Your task to perform on an android device: See recent photos Image 0: 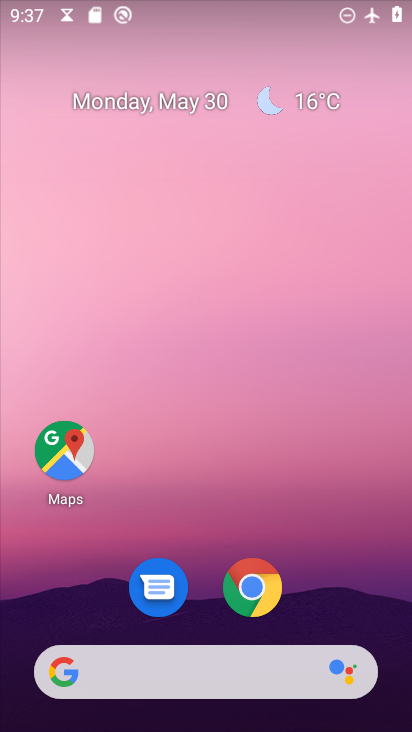
Step 0: drag from (217, 605) to (351, 189)
Your task to perform on an android device: See recent photos Image 1: 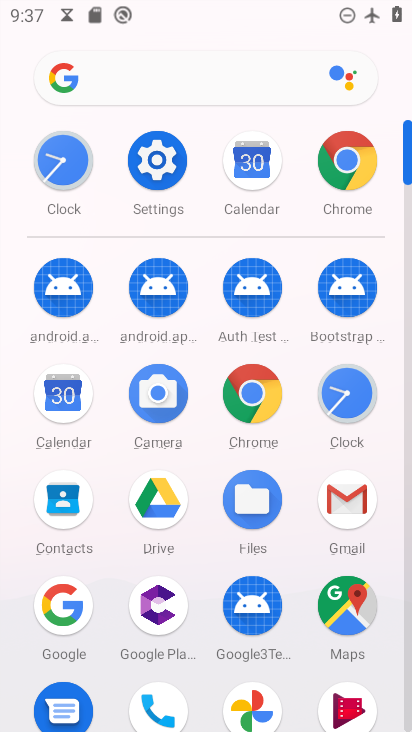
Step 1: drag from (210, 674) to (310, 459)
Your task to perform on an android device: See recent photos Image 2: 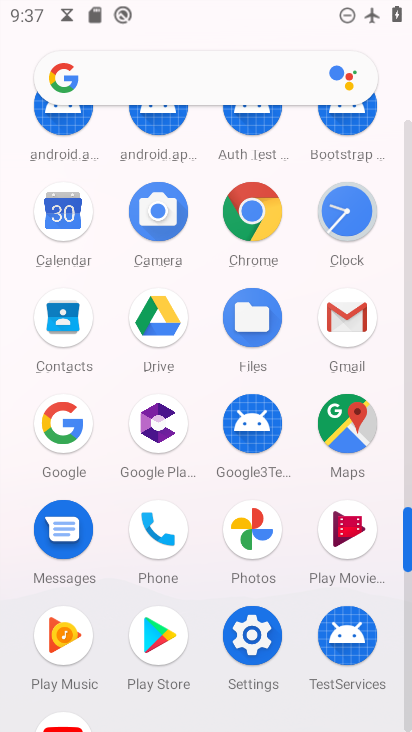
Step 2: click (262, 531)
Your task to perform on an android device: See recent photos Image 3: 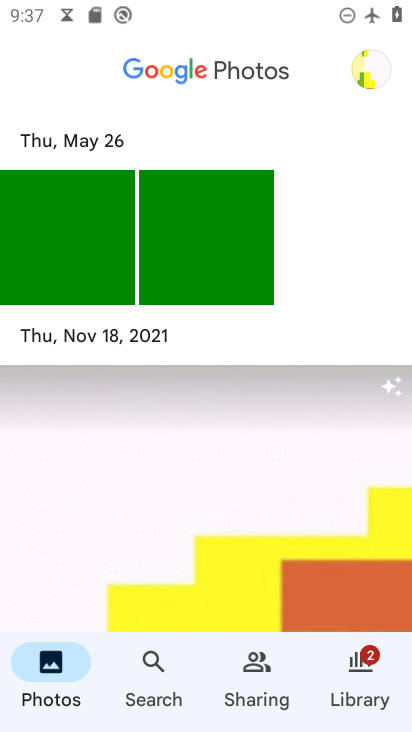
Step 3: click (160, 699)
Your task to perform on an android device: See recent photos Image 4: 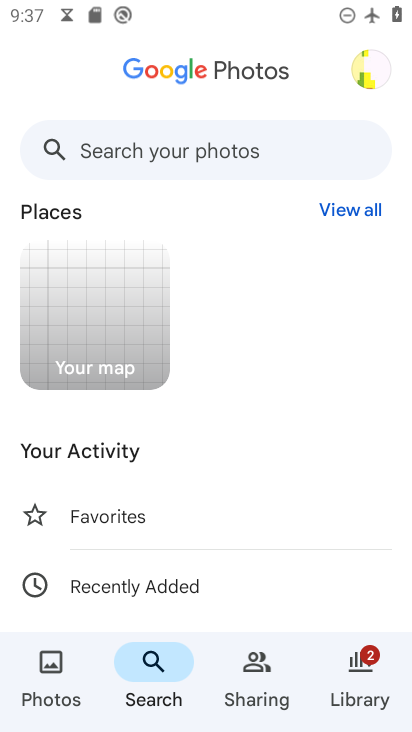
Step 4: drag from (182, 525) to (284, 376)
Your task to perform on an android device: See recent photos Image 5: 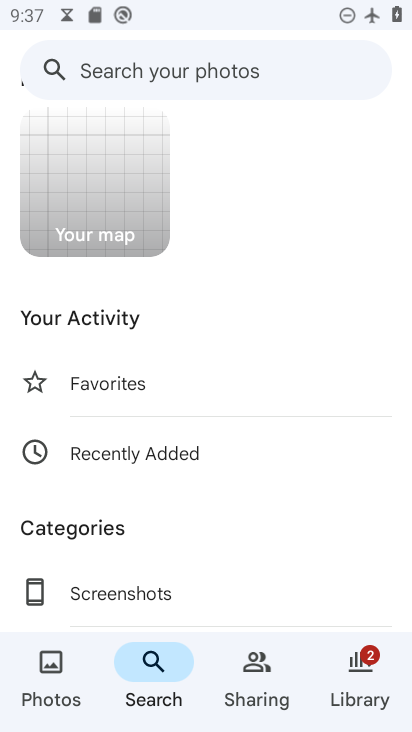
Step 5: click (153, 451)
Your task to perform on an android device: See recent photos Image 6: 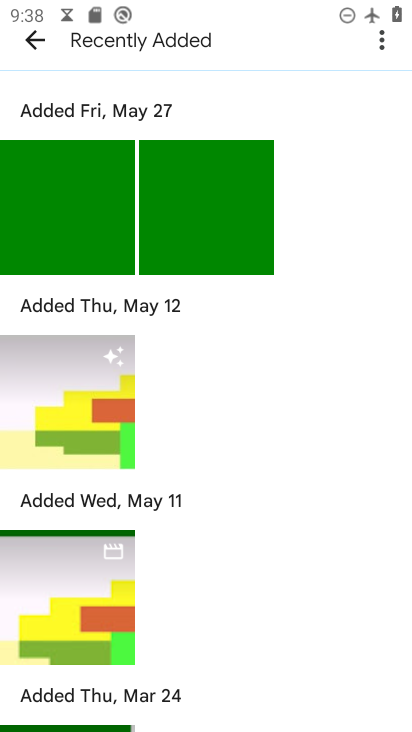
Step 6: task complete